Your task to perform on an android device: Is it going to rain today? Image 0: 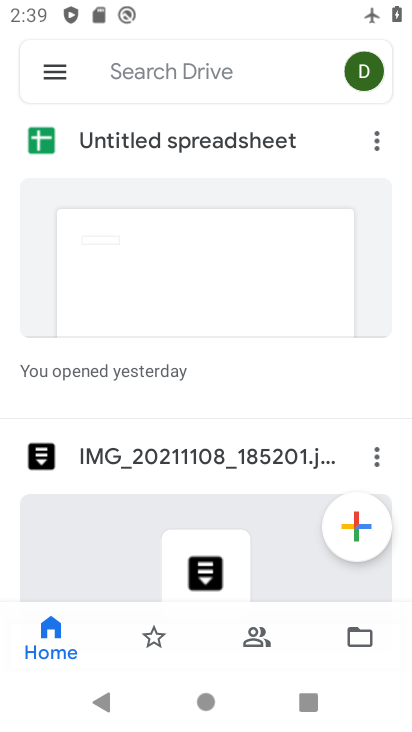
Step 0: press home button
Your task to perform on an android device: Is it going to rain today? Image 1: 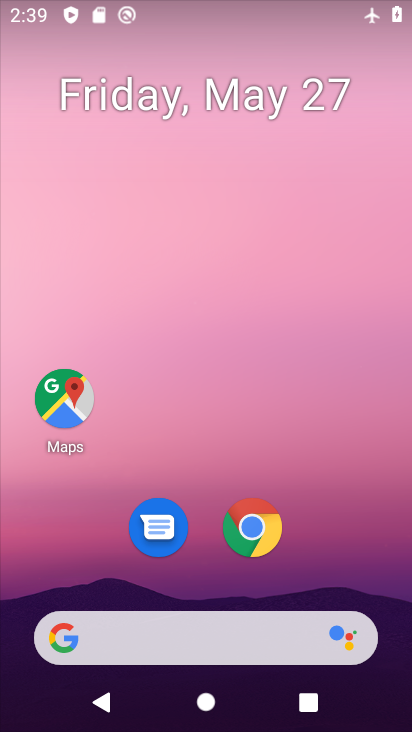
Step 1: click (236, 652)
Your task to perform on an android device: Is it going to rain today? Image 2: 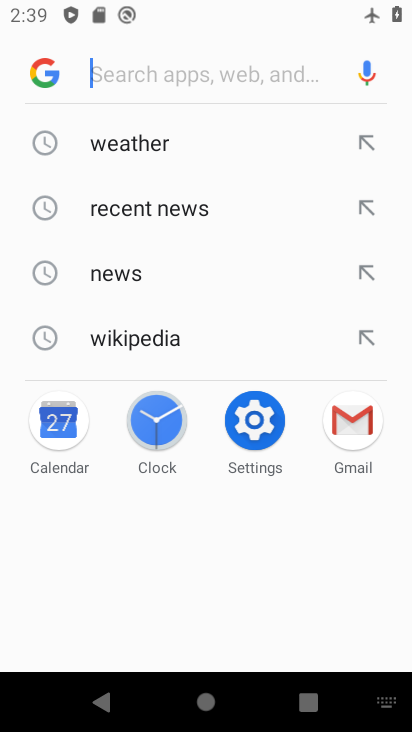
Step 2: type "Is it going to rain today?"
Your task to perform on an android device: Is it going to rain today? Image 3: 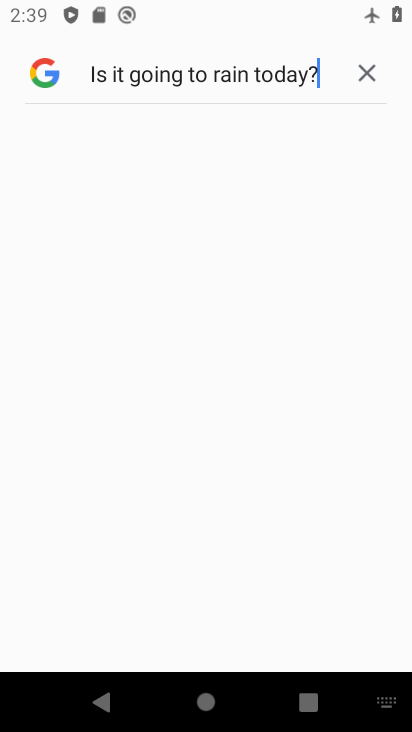
Step 3: task complete